Your task to perform on an android device: toggle airplane mode Image 0: 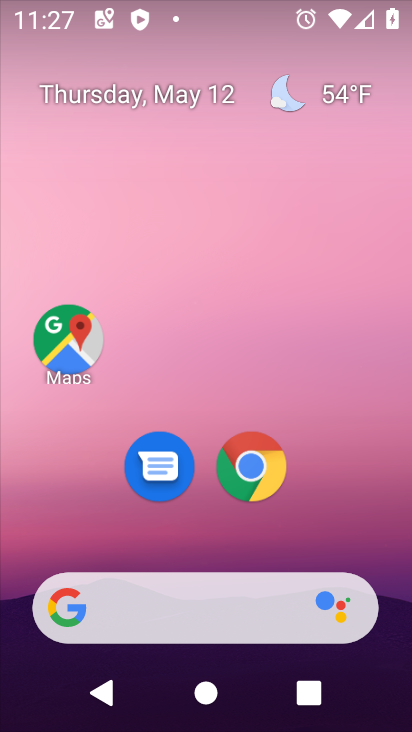
Step 0: drag from (343, 545) to (345, 197)
Your task to perform on an android device: toggle airplane mode Image 1: 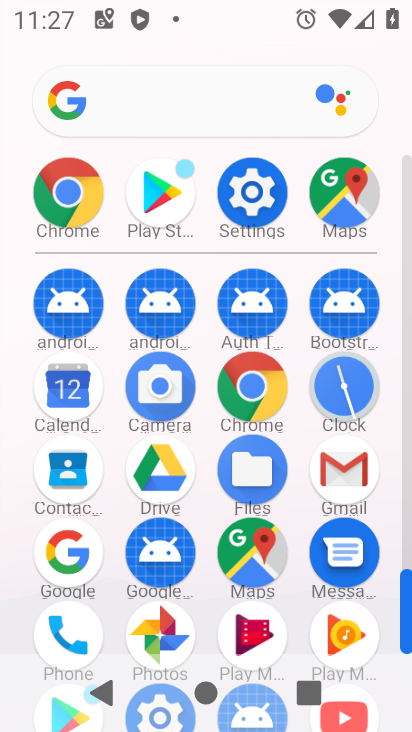
Step 1: click (229, 210)
Your task to perform on an android device: toggle airplane mode Image 2: 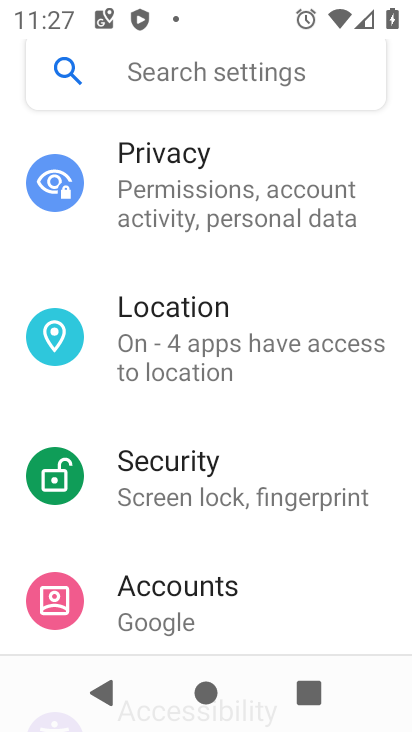
Step 2: drag from (261, 187) to (345, 565)
Your task to perform on an android device: toggle airplane mode Image 3: 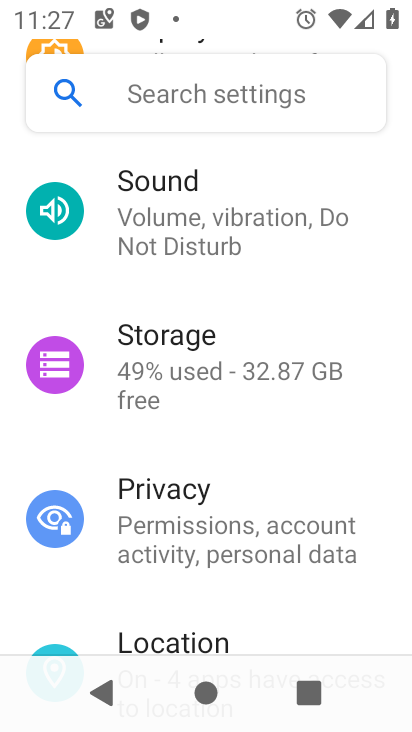
Step 3: drag from (345, 233) to (360, 575)
Your task to perform on an android device: toggle airplane mode Image 4: 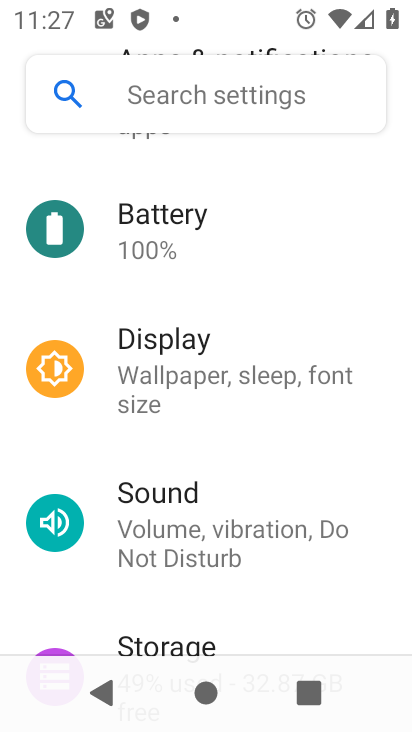
Step 4: drag from (351, 187) to (377, 547)
Your task to perform on an android device: toggle airplane mode Image 5: 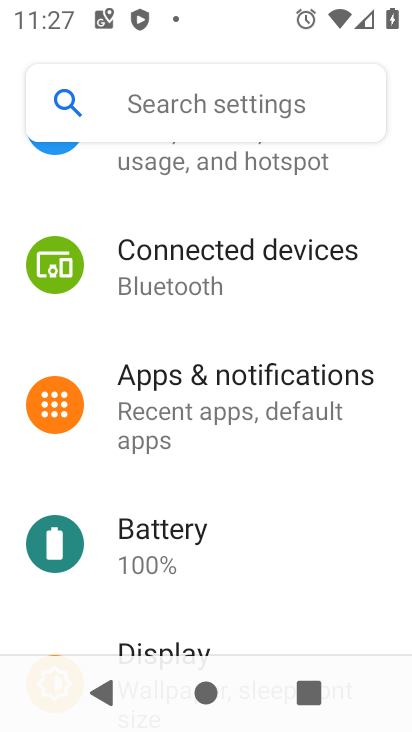
Step 5: drag from (311, 213) to (333, 579)
Your task to perform on an android device: toggle airplane mode Image 6: 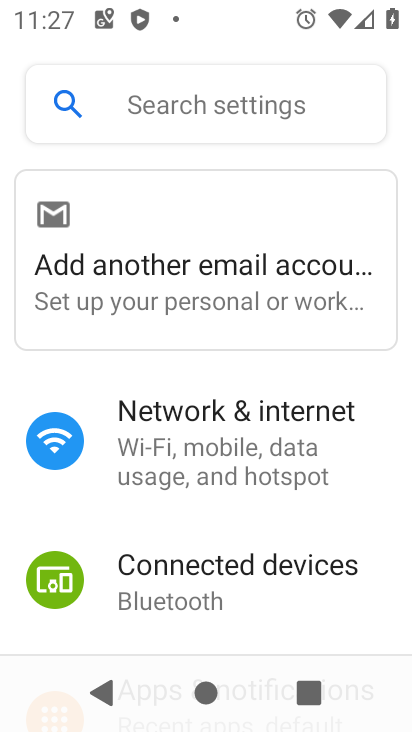
Step 6: click (201, 430)
Your task to perform on an android device: toggle airplane mode Image 7: 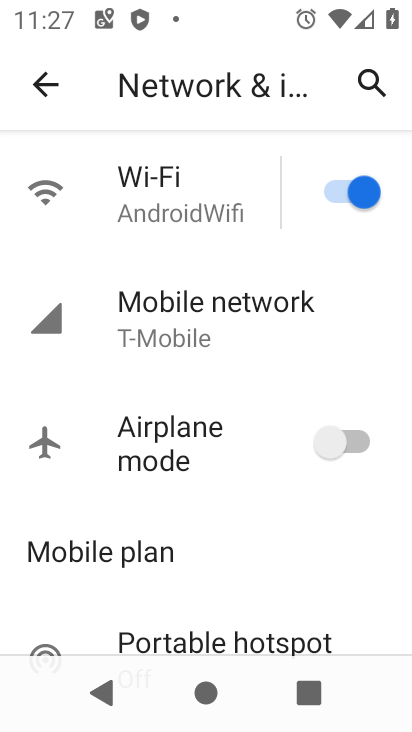
Step 7: click (368, 447)
Your task to perform on an android device: toggle airplane mode Image 8: 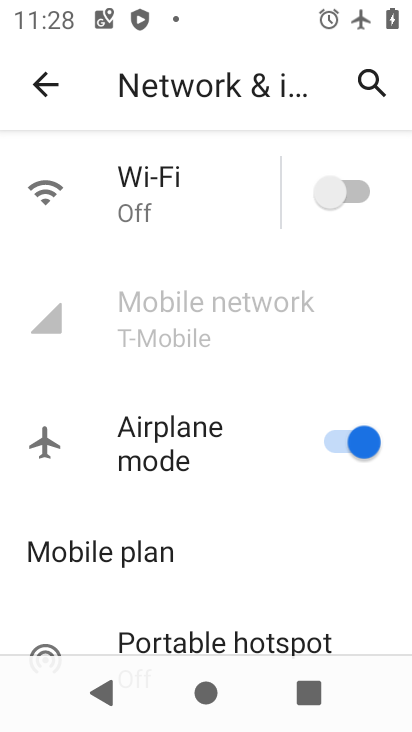
Step 8: task complete